Your task to perform on an android device: Open the map Image 0: 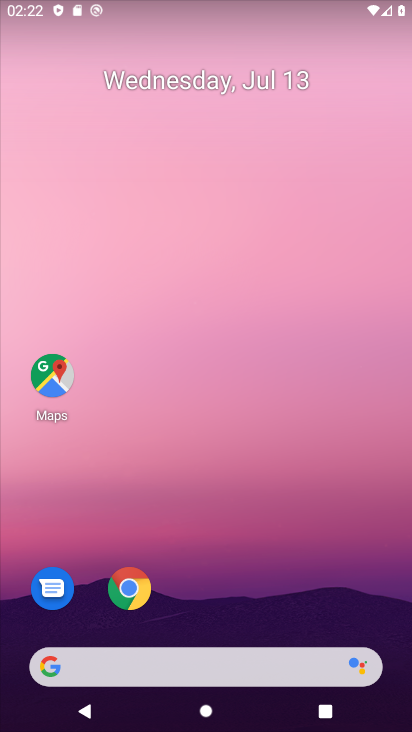
Step 0: drag from (259, 576) to (212, 125)
Your task to perform on an android device: Open the map Image 1: 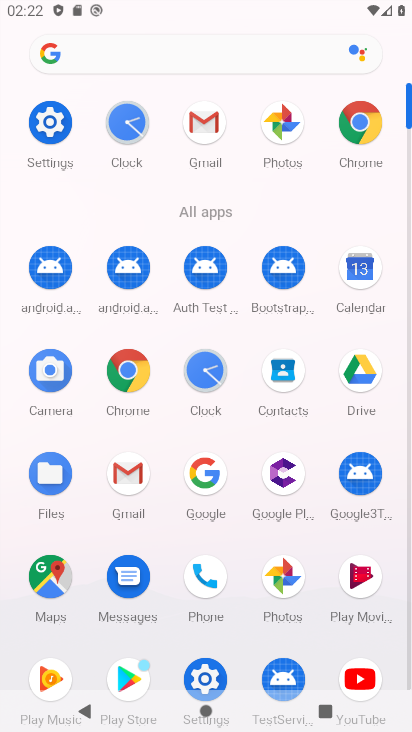
Step 1: click (57, 595)
Your task to perform on an android device: Open the map Image 2: 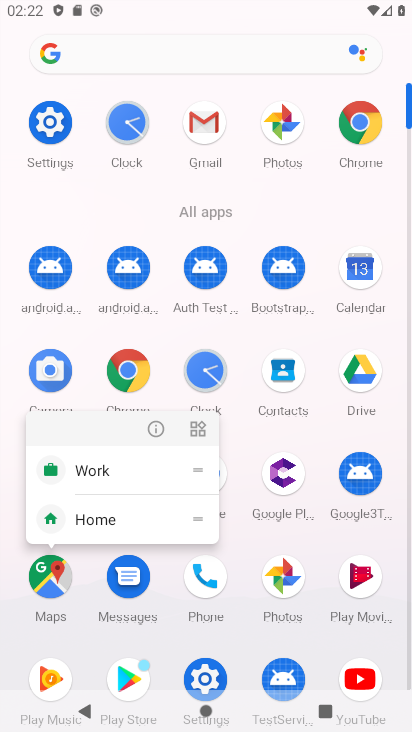
Step 2: click (57, 595)
Your task to perform on an android device: Open the map Image 3: 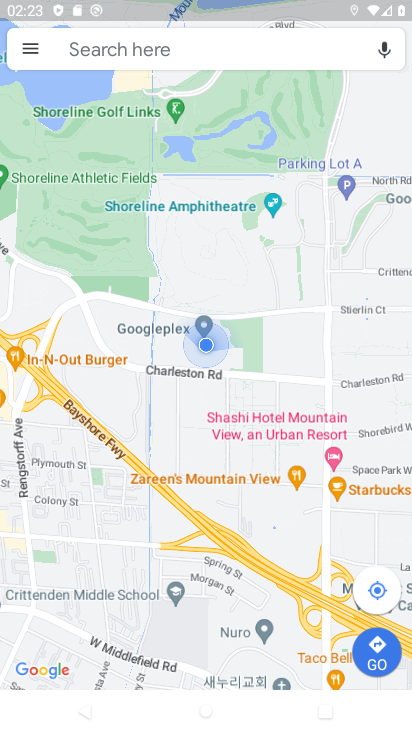
Step 3: task complete